Your task to perform on an android device: manage bookmarks in the chrome app Image 0: 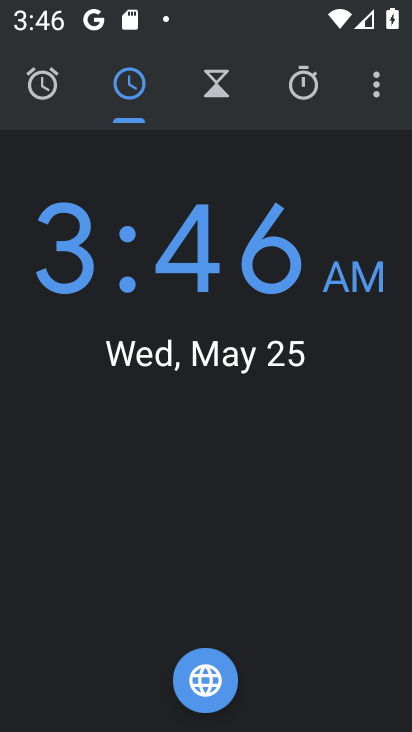
Step 0: press home button
Your task to perform on an android device: manage bookmarks in the chrome app Image 1: 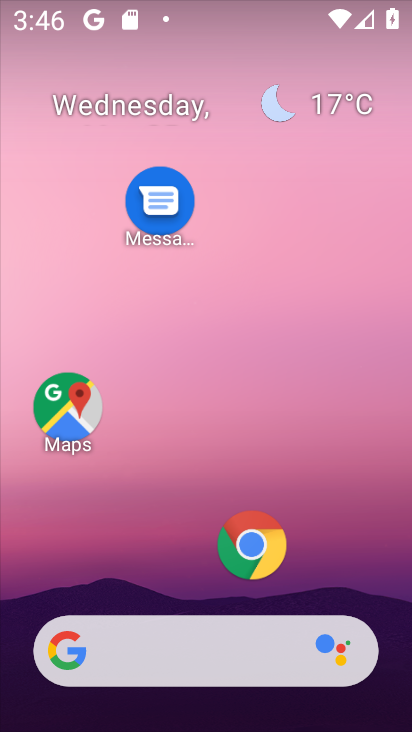
Step 1: drag from (315, 560) to (279, 205)
Your task to perform on an android device: manage bookmarks in the chrome app Image 2: 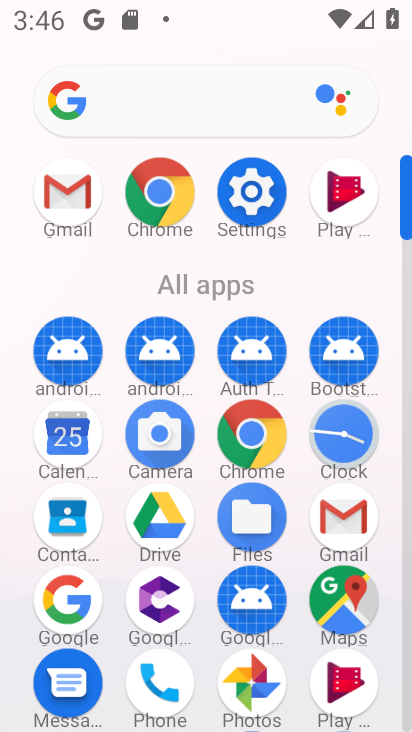
Step 2: click (256, 424)
Your task to perform on an android device: manage bookmarks in the chrome app Image 3: 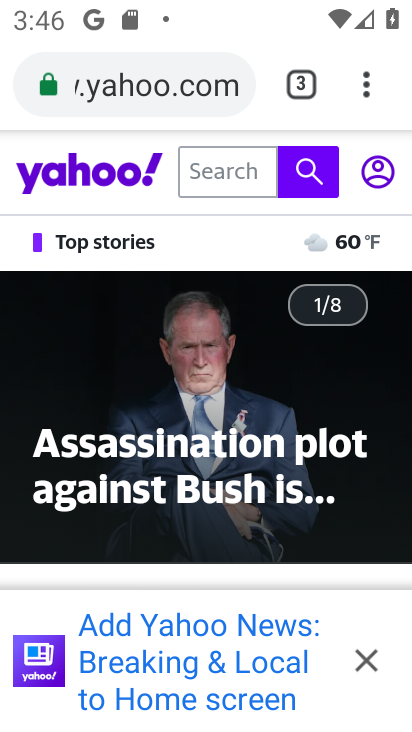
Step 3: click (371, 93)
Your task to perform on an android device: manage bookmarks in the chrome app Image 4: 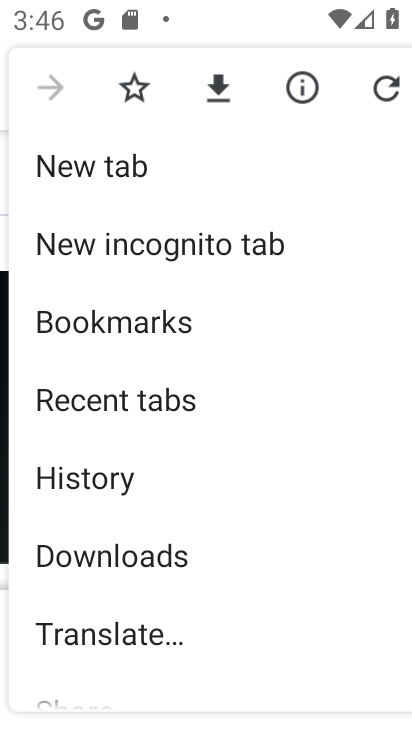
Step 4: click (158, 312)
Your task to perform on an android device: manage bookmarks in the chrome app Image 5: 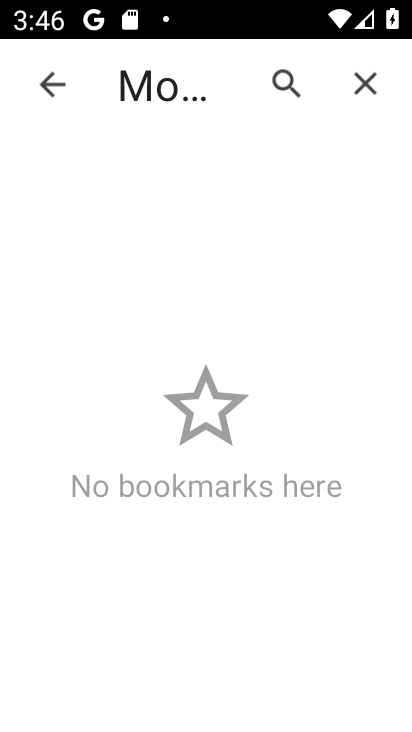
Step 5: task complete